Your task to perform on an android device: turn on priority inbox in the gmail app Image 0: 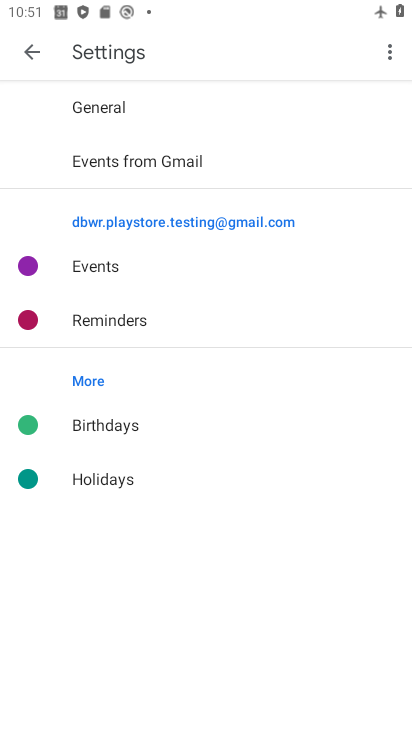
Step 0: press home button
Your task to perform on an android device: turn on priority inbox in the gmail app Image 1: 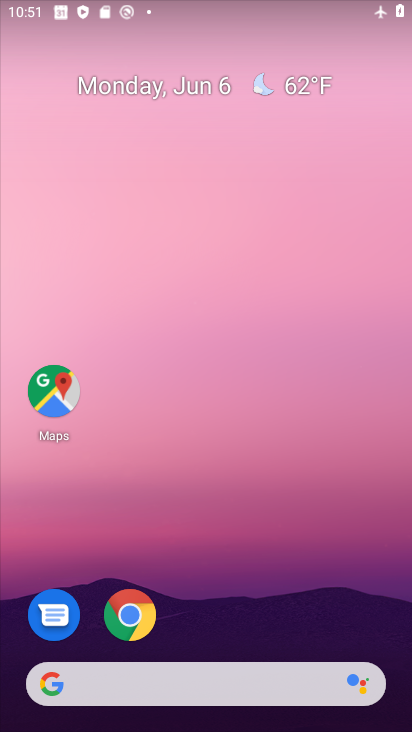
Step 1: drag from (207, 679) to (231, 213)
Your task to perform on an android device: turn on priority inbox in the gmail app Image 2: 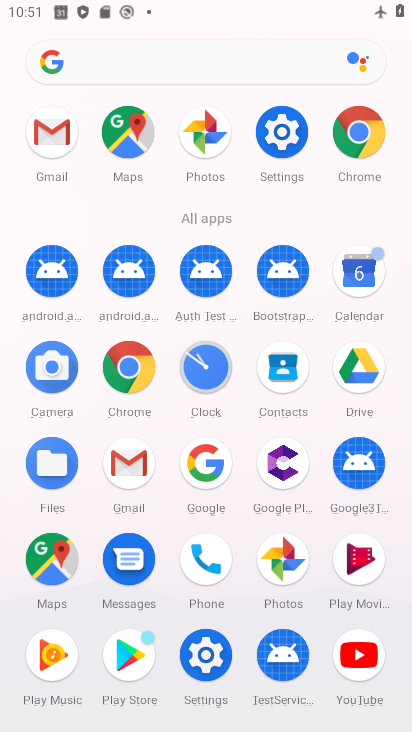
Step 2: click (57, 152)
Your task to perform on an android device: turn on priority inbox in the gmail app Image 3: 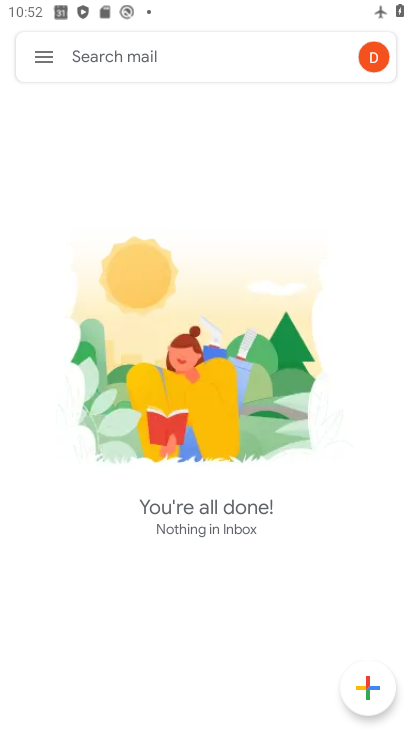
Step 3: click (40, 60)
Your task to perform on an android device: turn on priority inbox in the gmail app Image 4: 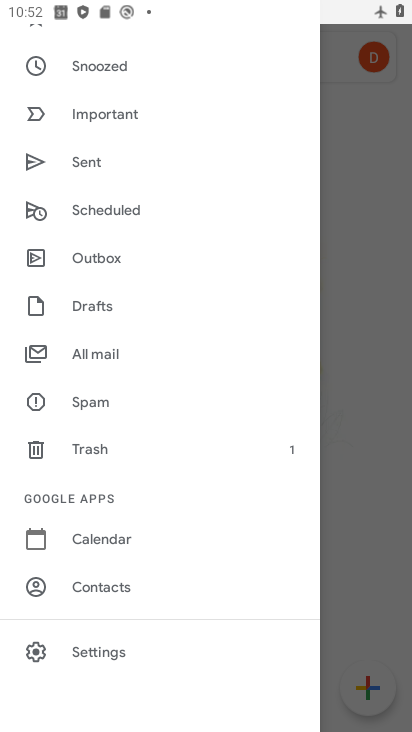
Step 4: click (106, 655)
Your task to perform on an android device: turn on priority inbox in the gmail app Image 5: 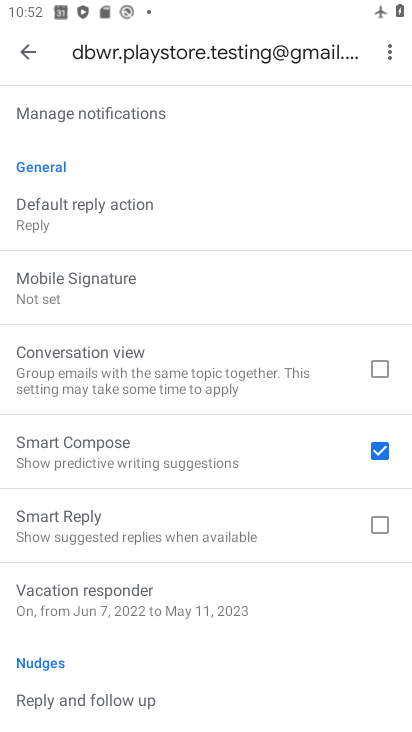
Step 5: drag from (174, 269) to (94, 728)
Your task to perform on an android device: turn on priority inbox in the gmail app Image 6: 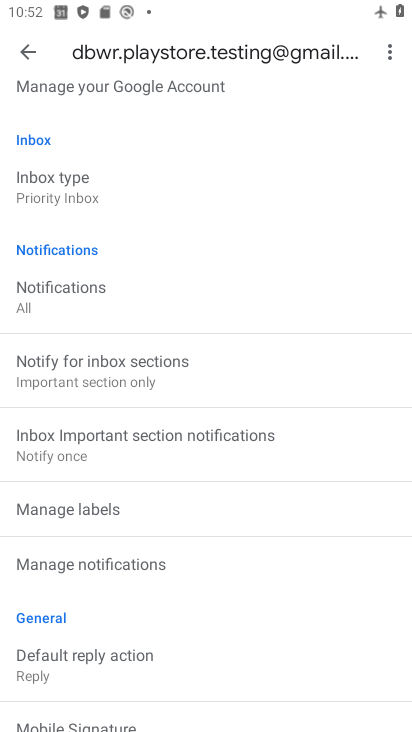
Step 6: click (96, 186)
Your task to perform on an android device: turn on priority inbox in the gmail app Image 7: 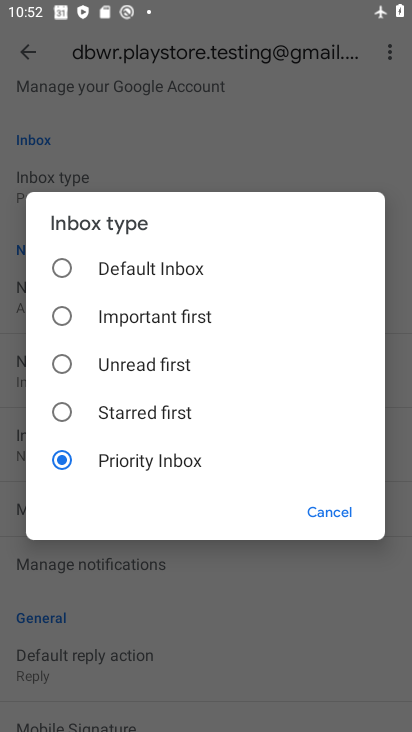
Step 7: click (114, 464)
Your task to perform on an android device: turn on priority inbox in the gmail app Image 8: 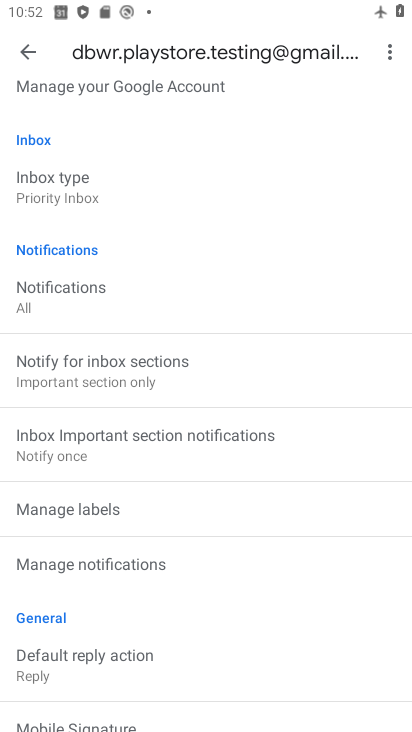
Step 8: task complete